Your task to perform on an android device: Do I have any events tomorrow? Image 0: 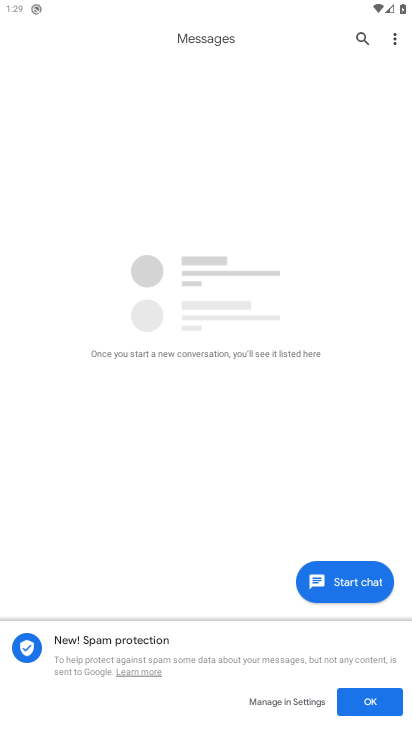
Step 0: press home button
Your task to perform on an android device: Do I have any events tomorrow? Image 1: 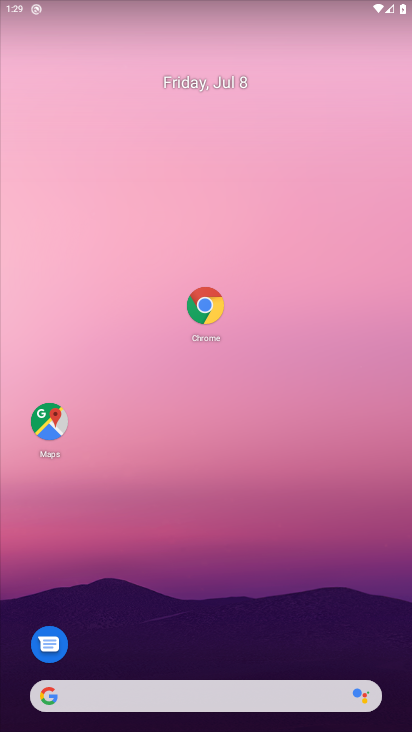
Step 1: drag from (215, 624) to (215, 269)
Your task to perform on an android device: Do I have any events tomorrow? Image 2: 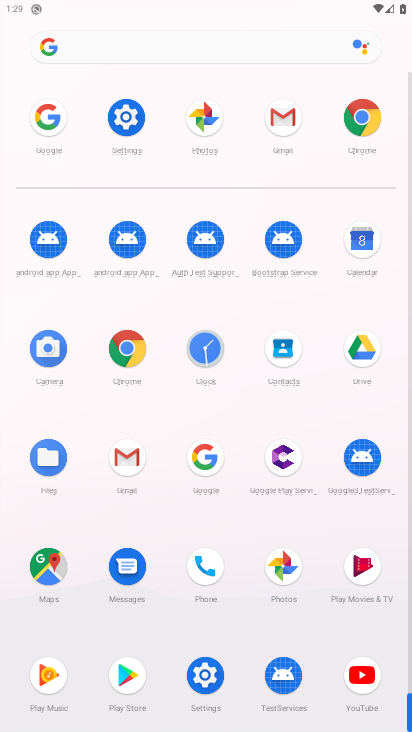
Step 2: click (354, 243)
Your task to perform on an android device: Do I have any events tomorrow? Image 3: 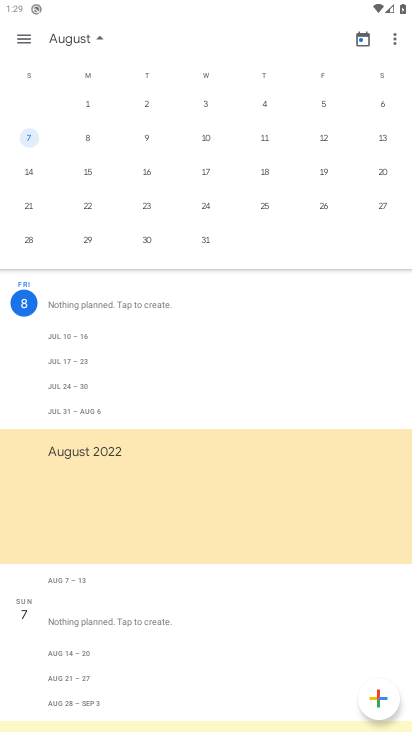
Step 3: drag from (22, 190) to (379, 140)
Your task to perform on an android device: Do I have any events tomorrow? Image 4: 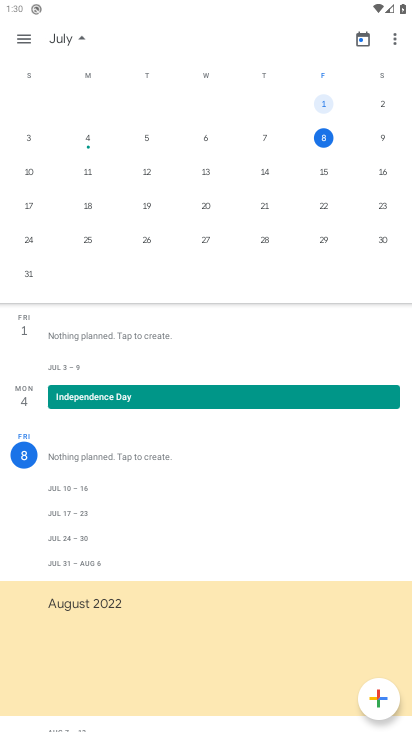
Step 4: click (383, 138)
Your task to perform on an android device: Do I have any events tomorrow? Image 5: 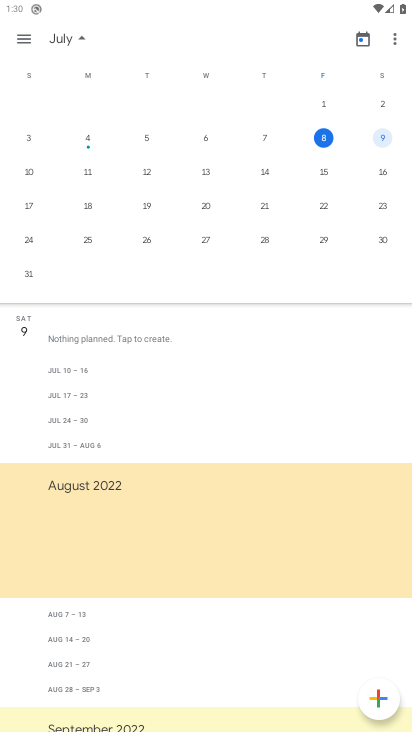
Step 5: task complete